Your task to perform on an android device: Show me productivity apps on the Play Store Image 0: 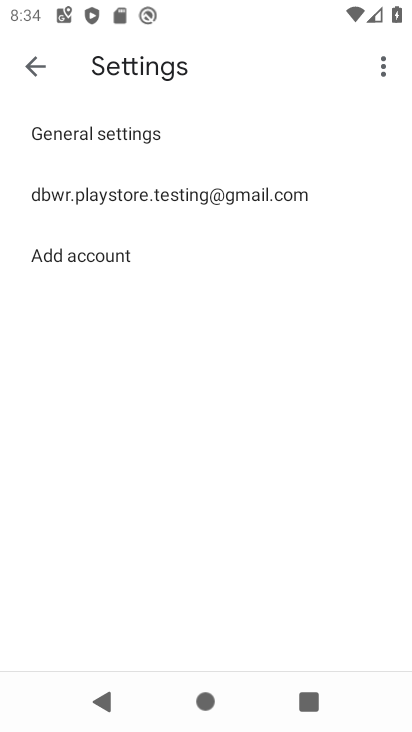
Step 0: press home button
Your task to perform on an android device: Show me productivity apps on the Play Store Image 1: 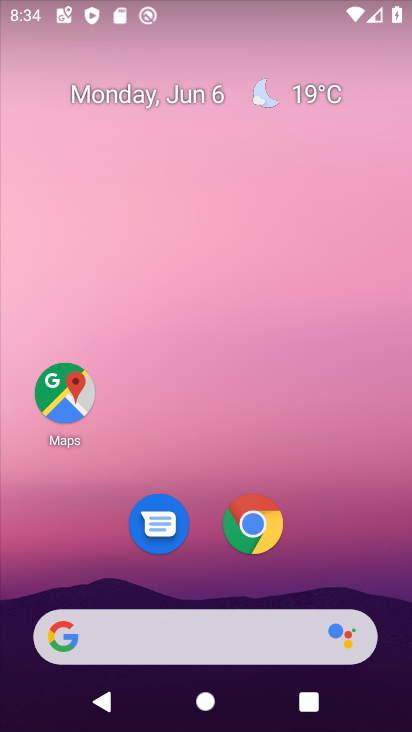
Step 1: drag from (331, 539) to (298, 4)
Your task to perform on an android device: Show me productivity apps on the Play Store Image 2: 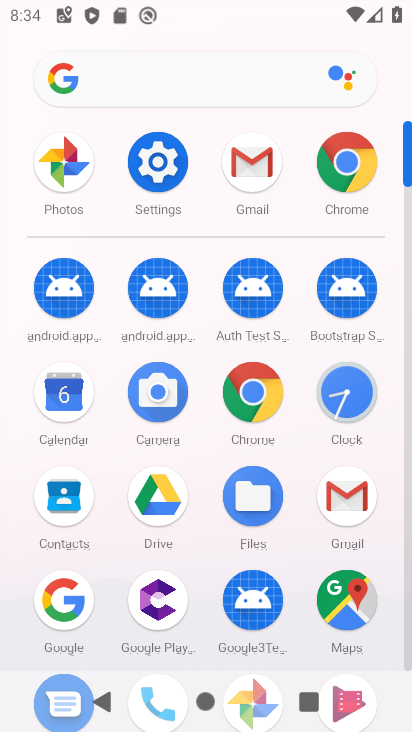
Step 2: drag from (193, 503) to (205, 217)
Your task to perform on an android device: Show me productivity apps on the Play Store Image 3: 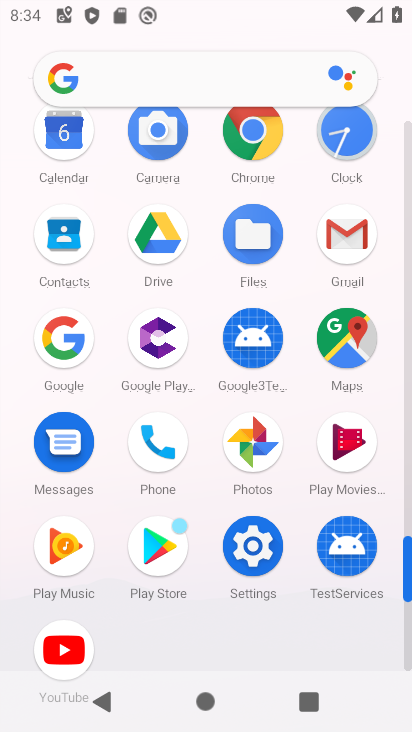
Step 3: click (163, 538)
Your task to perform on an android device: Show me productivity apps on the Play Store Image 4: 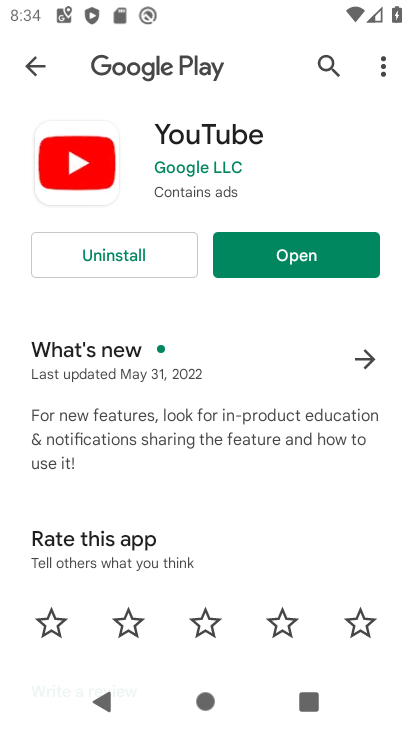
Step 4: click (35, 67)
Your task to perform on an android device: Show me productivity apps on the Play Store Image 5: 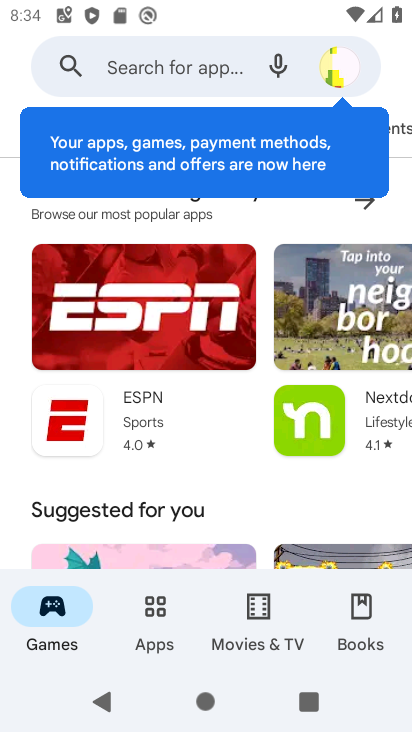
Step 5: click (166, 604)
Your task to perform on an android device: Show me productivity apps on the Play Store Image 6: 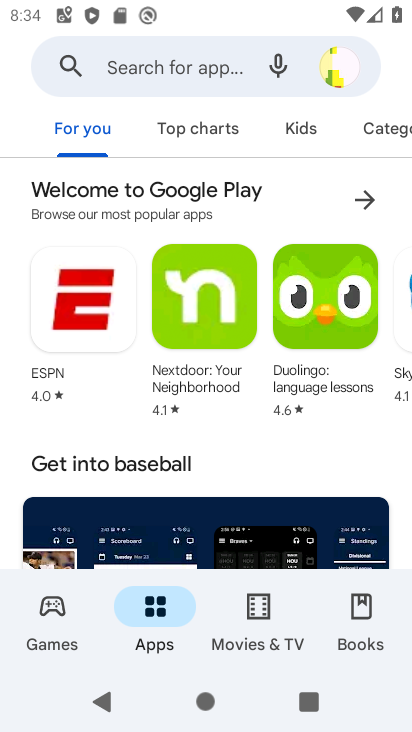
Step 6: click (379, 135)
Your task to perform on an android device: Show me productivity apps on the Play Store Image 7: 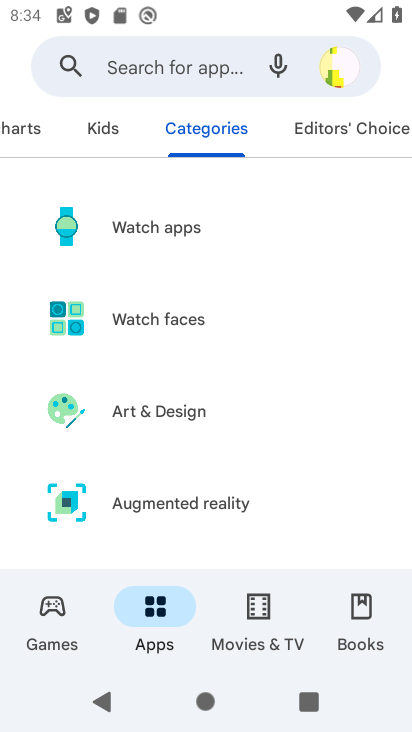
Step 7: drag from (244, 531) to (284, 4)
Your task to perform on an android device: Show me productivity apps on the Play Store Image 8: 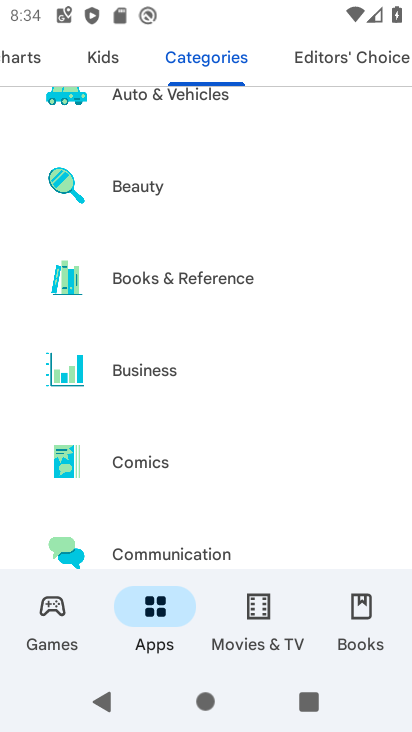
Step 8: drag from (246, 510) to (266, 1)
Your task to perform on an android device: Show me productivity apps on the Play Store Image 9: 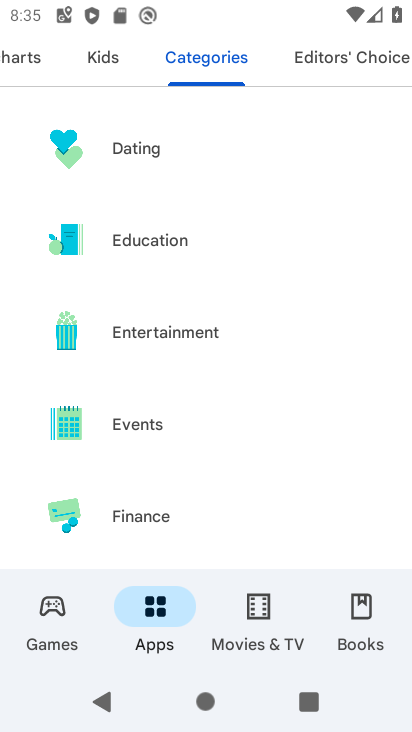
Step 9: drag from (230, 476) to (263, 2)
Your task to perform on an android device: Show me productivity apps on the Play Store Image 10: 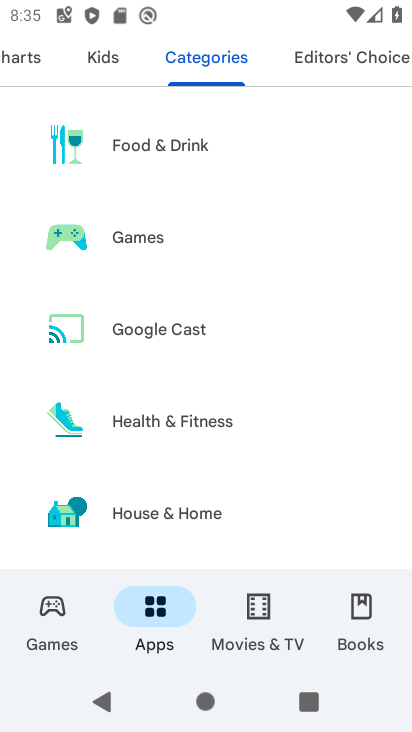
Step 10: drag from (260, 502) to (291, 6)
Your task to perform on an android device: Show me productivity apps on the Play Store Image 11: 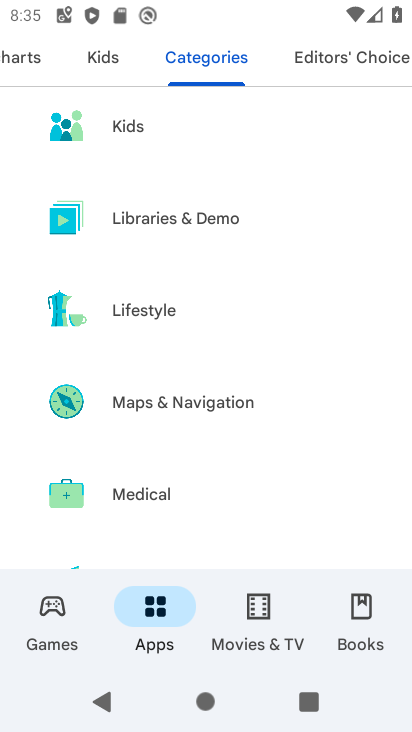
Step 11: drag from (243, 478) to (257, 32)
Your task to perform on an android device: Show me productivity apps on the Play Store Image 12: 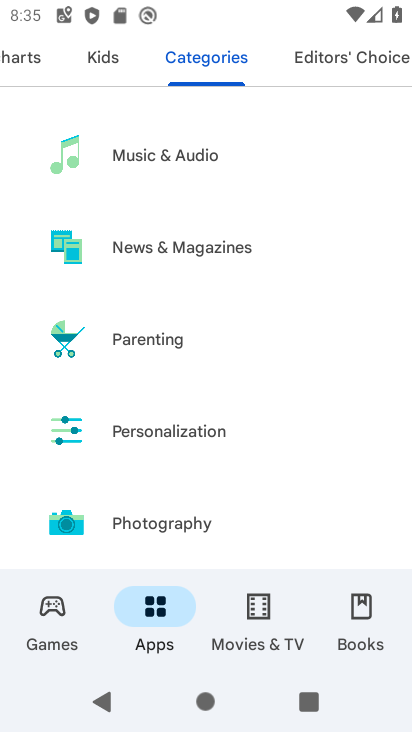
Step 12: drag from (272, 465) to (280, 245)
Your task to perform on an android device: Show me productivity apps on the Play Store Image 13: 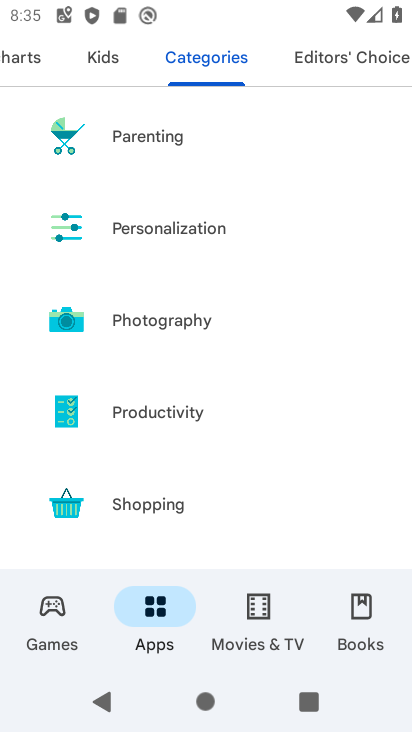
Step 13: click (171, 403)
Your task to perform on an android device: Show me productivity apps on the Play Store Image 14: 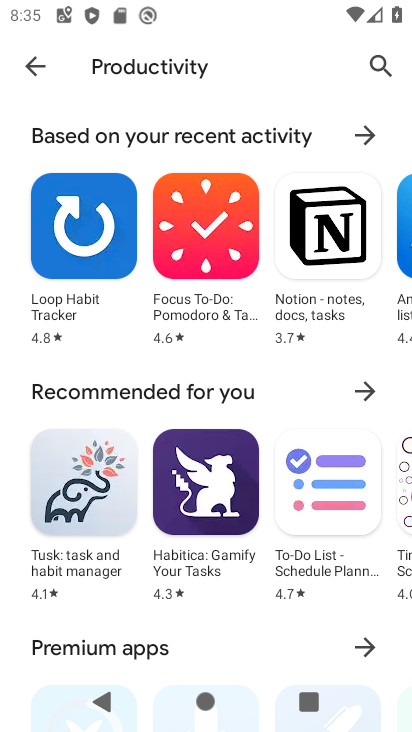
Step 14: drag from (266, 381) to (288, 0)
Your task to perform on an android device: Show me productivity apps on the Play Store Image 15: 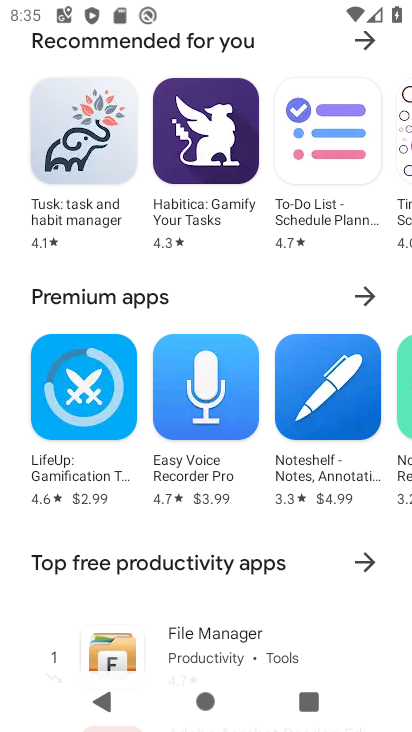
Step 15: drag from (278, 281) to (289, 58)
Your task to perform on an android device: Show me productivity apps on the Play Store Image 16: 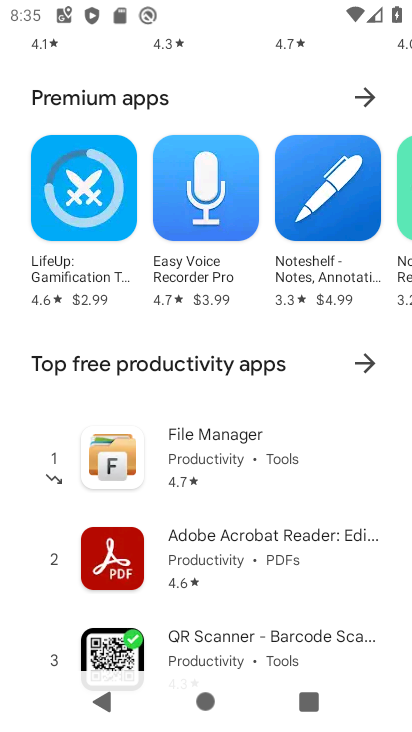
Step 16: drag from (276, 393) to (271, 686)
Your task to perform on an android device: Show me productivity apps on the Play Store Image 17: 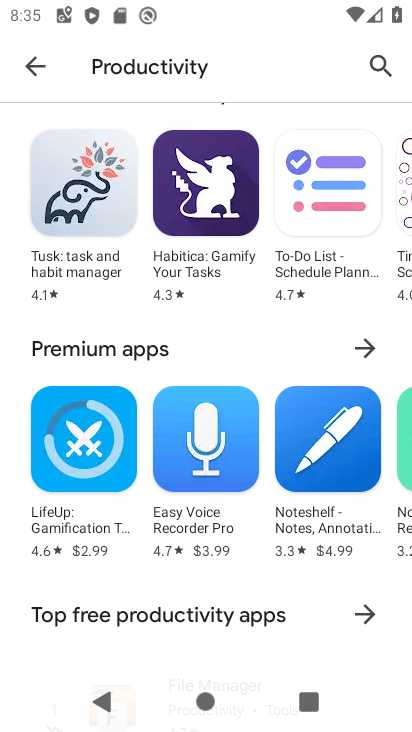
Step 17: drag from (281, 325) to (263, 661)
Your task to perform on an android device: Show me productivity apps on the Play Store Image 18: 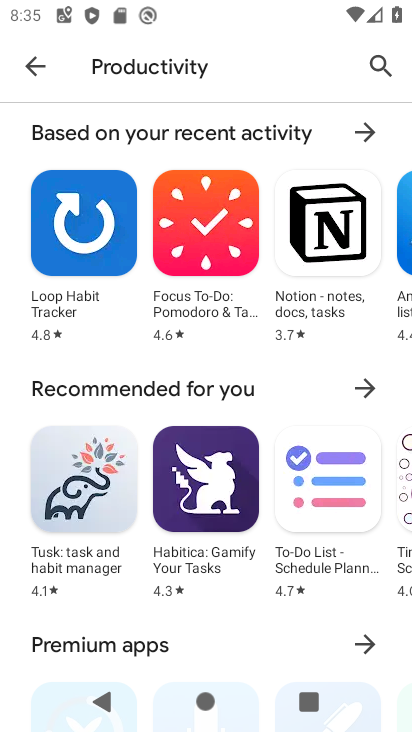
Step 18: drag from (265, 606) to (292, 56)
Your task to perform on an android device: Show me productivity apps on the Play Store Image 19: 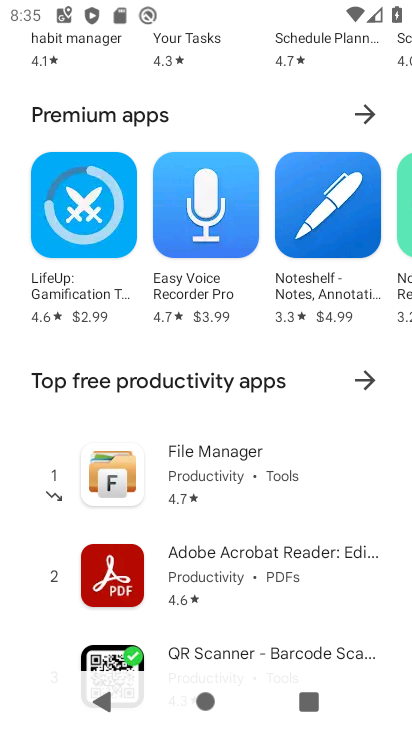
Step 19: click (357, 370)
Your task to perform on an android device: Show me productivity apps on the Play Store Image 20: 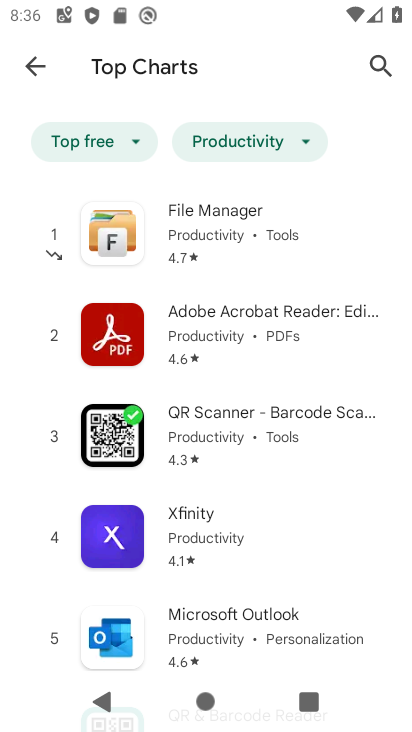
Step 20: click (247, 139)
Your task to perform on an android device: Show me productivity apps on the Play Store Image 21: 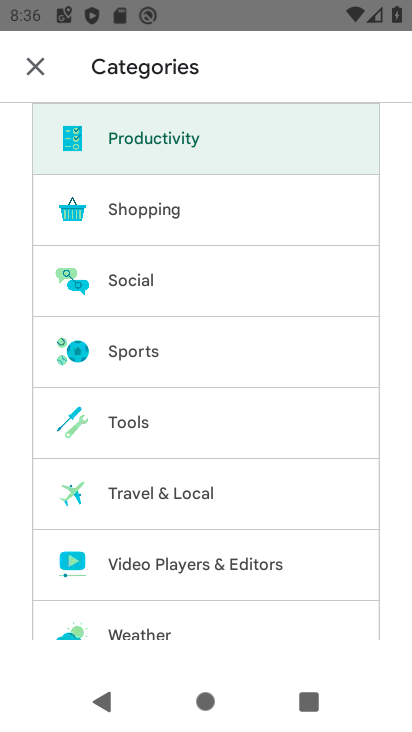
Step 21: click (247, 136)
Your task to perform on an android device: Show me productivity apps on the Play Store Image 22: 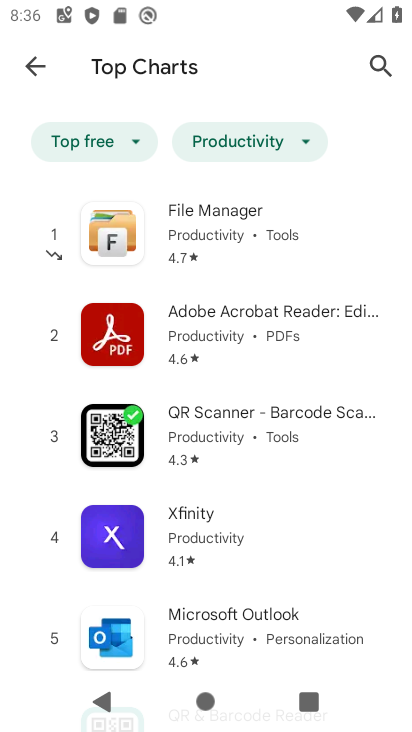
Step 22: task complete